Your task to perform on an android device: delete location history Image 0: 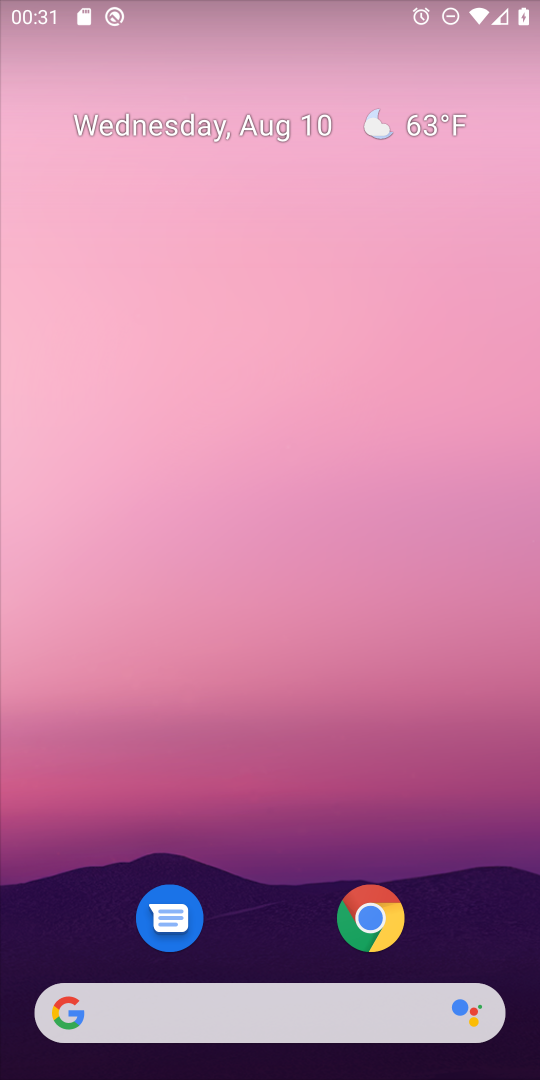
Step 0: press home button
Your task to perform on an android device: delete location history Image 1: 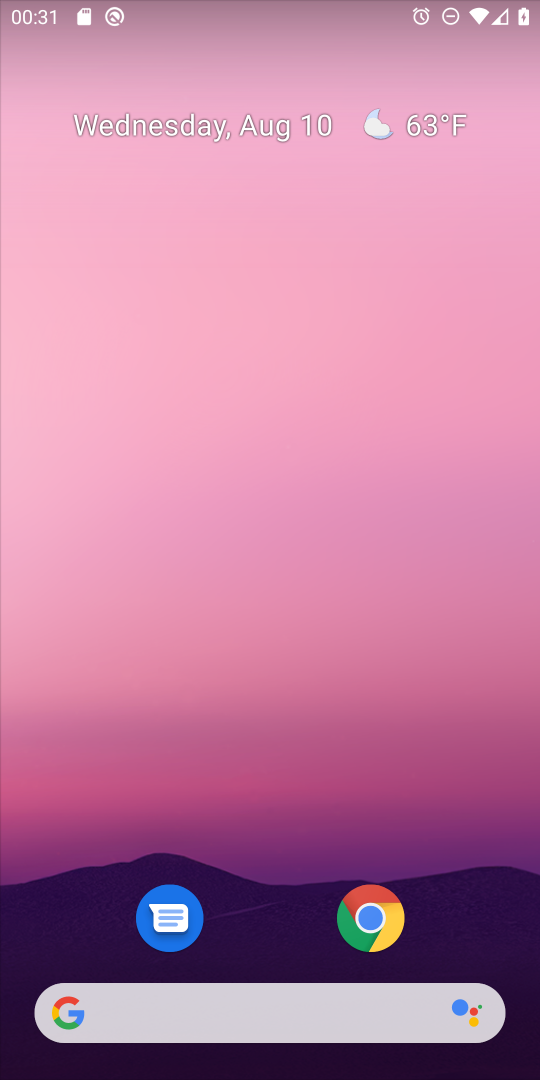
Step 1: press home button
Your task to perform on an android device: delete location history Image 2: 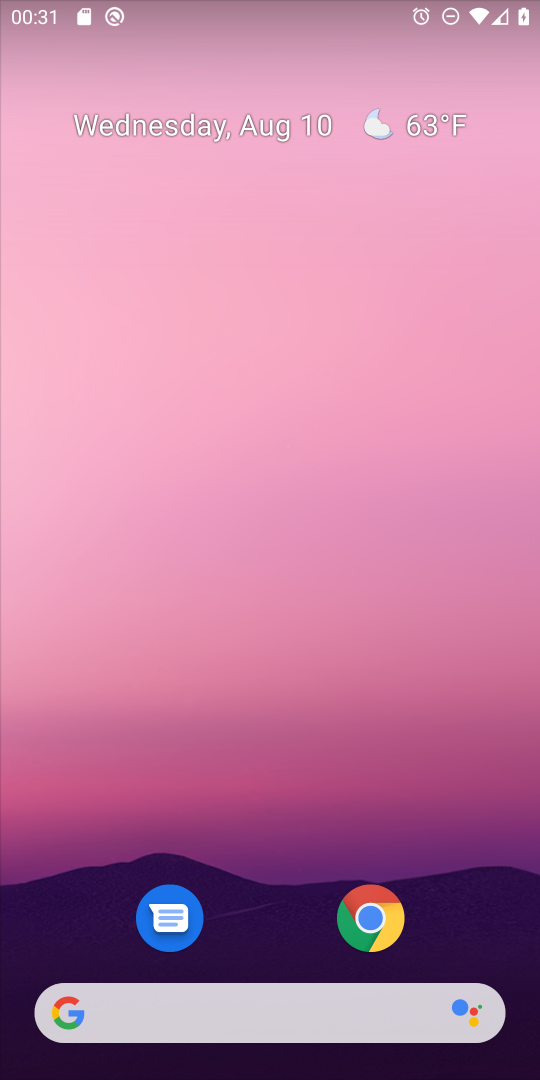
Step 2: drag from (283, 856) to (300, 73)
Your task to perform on an android device: delete location history Image 3: 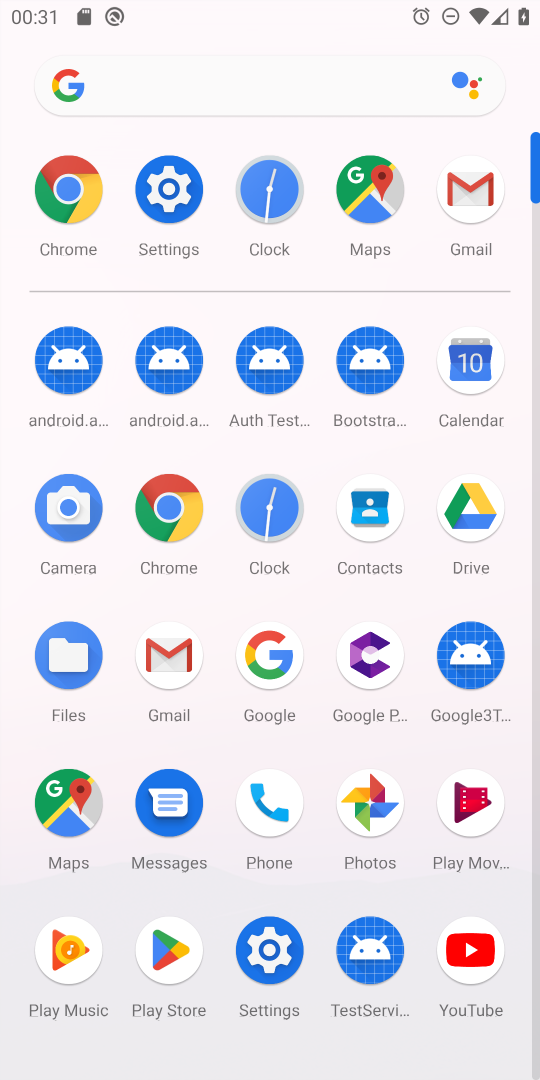
Step 3: click (78, 796)
Your task to perform on an android device: delete location history Image 4: 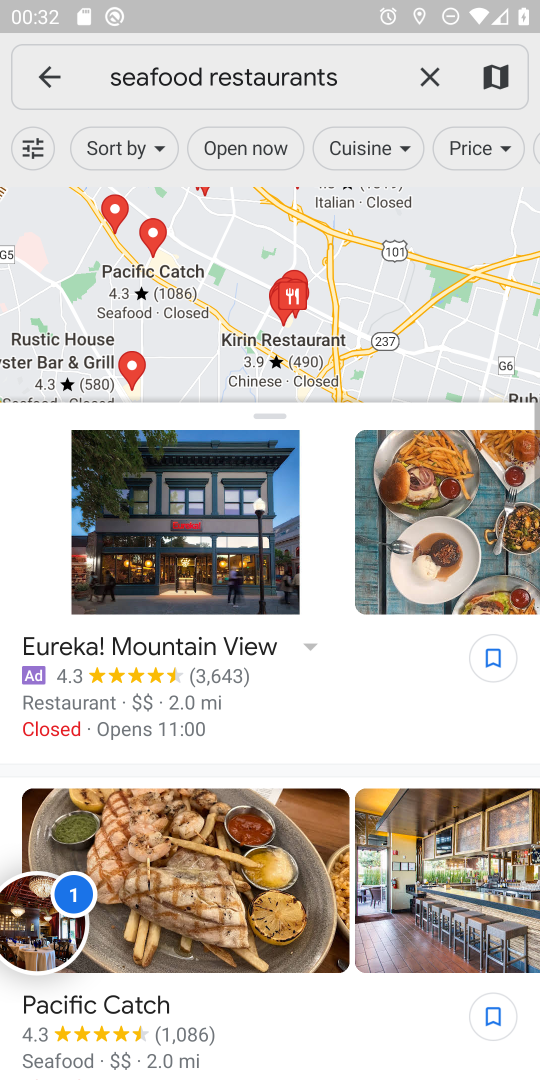
Step 4: click (47, 66)
Your task to perform on an android device: delete location history Image 5: 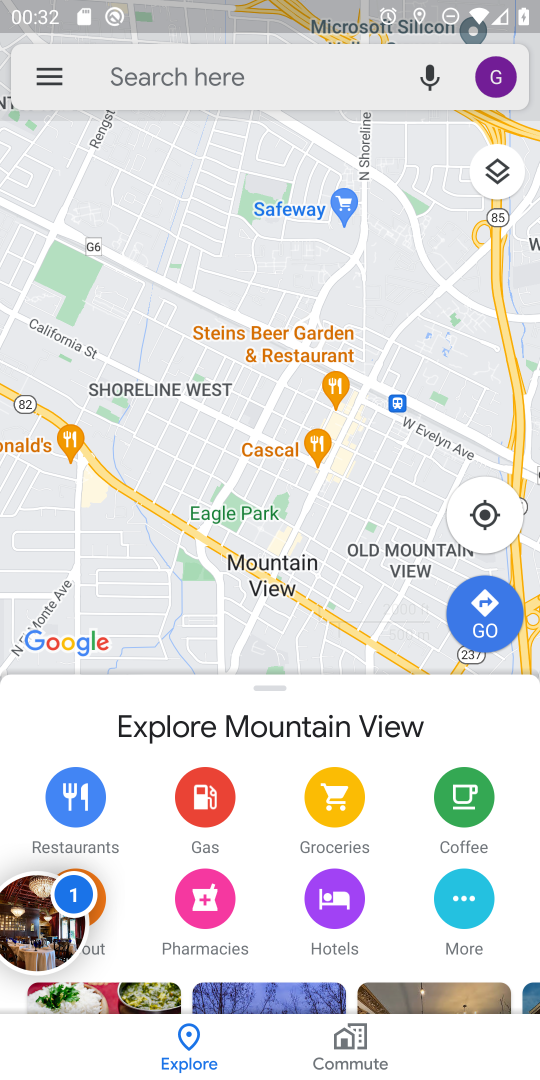
Step 5: click (44, 60)
Your task to perform on an android device: delete location history Image 6: 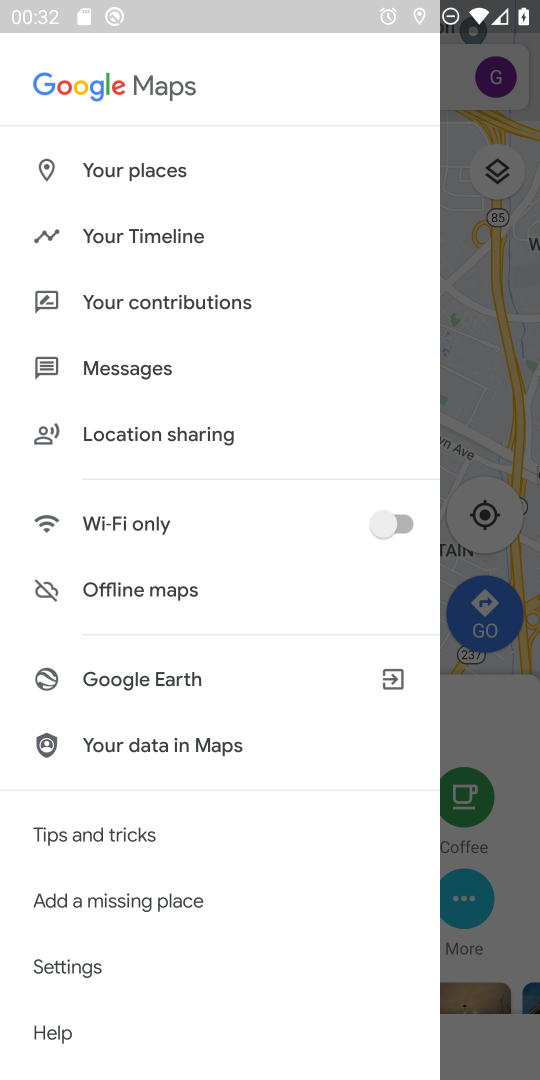
Step 6: drag from (166, 926) to (270, 419)
Your task to perform on an android device: delete location history Image 7: 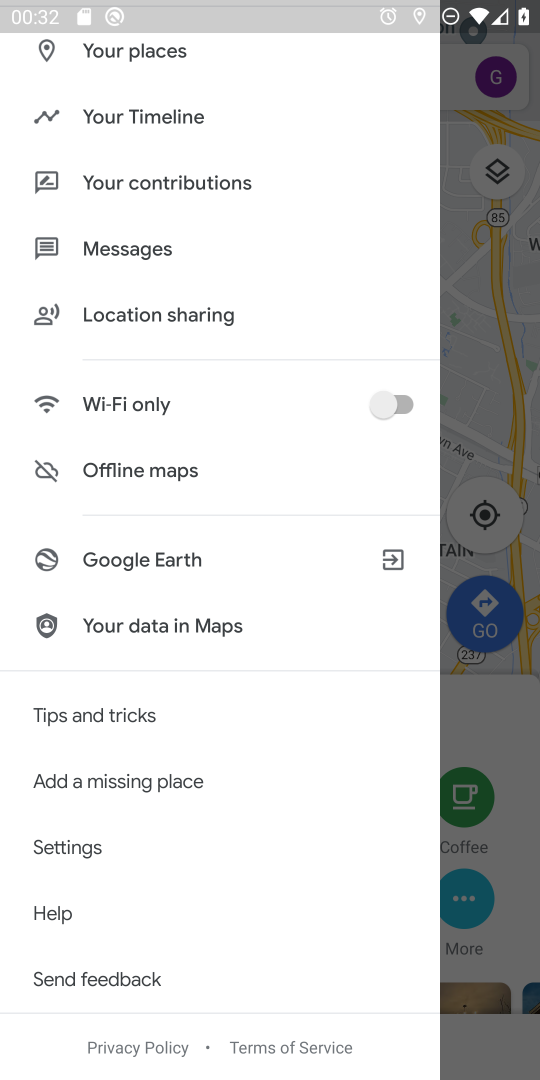
Step 7: click (57, 848)
Your task to perform on an android device: delete location history Image 8: 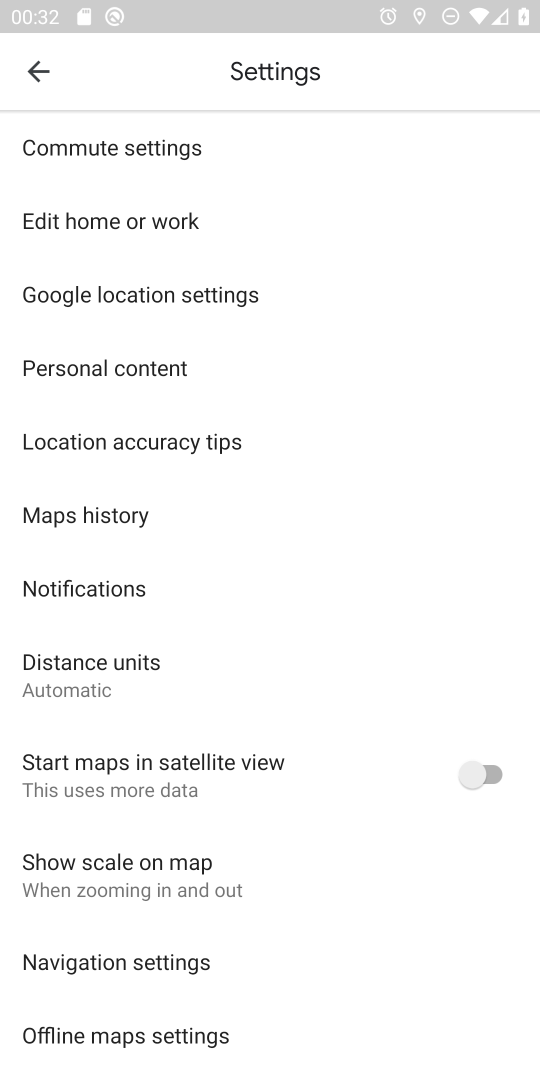
Step 8: click (61, 533)
Your task to perform on an android device: delete location history Image 9: 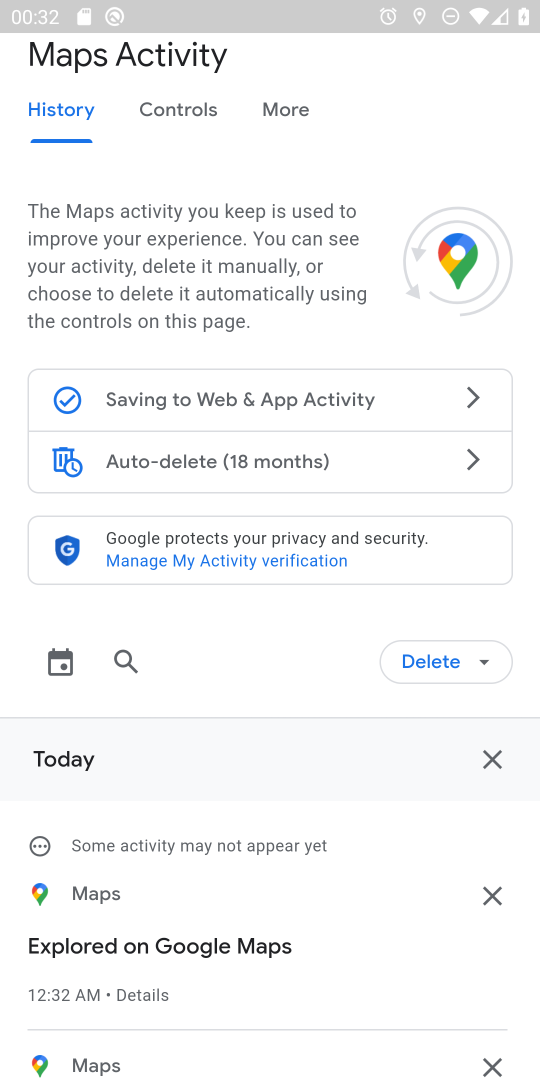
Step 9: click (440, 672)
Your task to perform on an android device: delete location history Image 10: 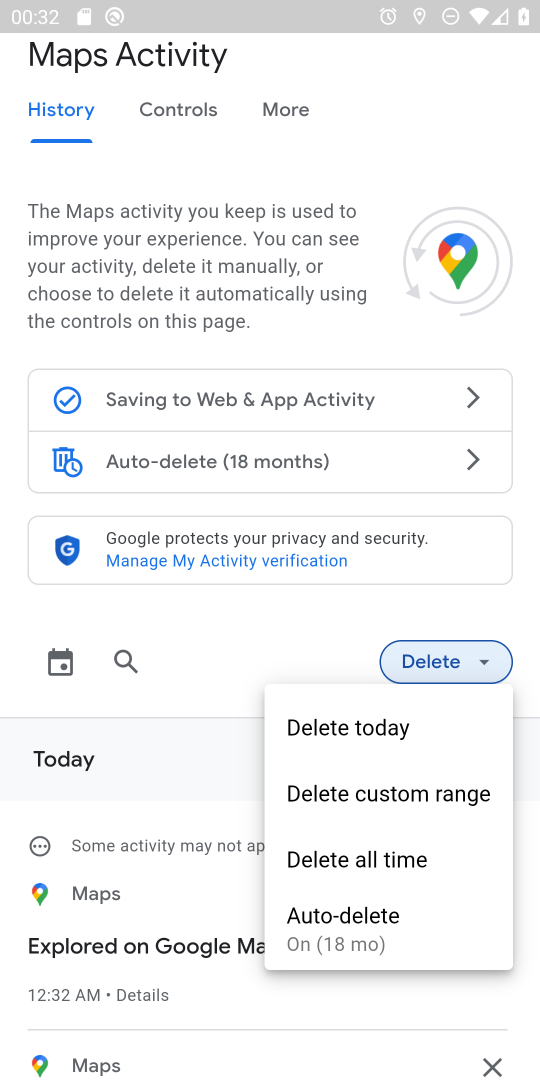
Step 10: click (496, 661)
Your task to perform on an android device: delete location history Image 11: 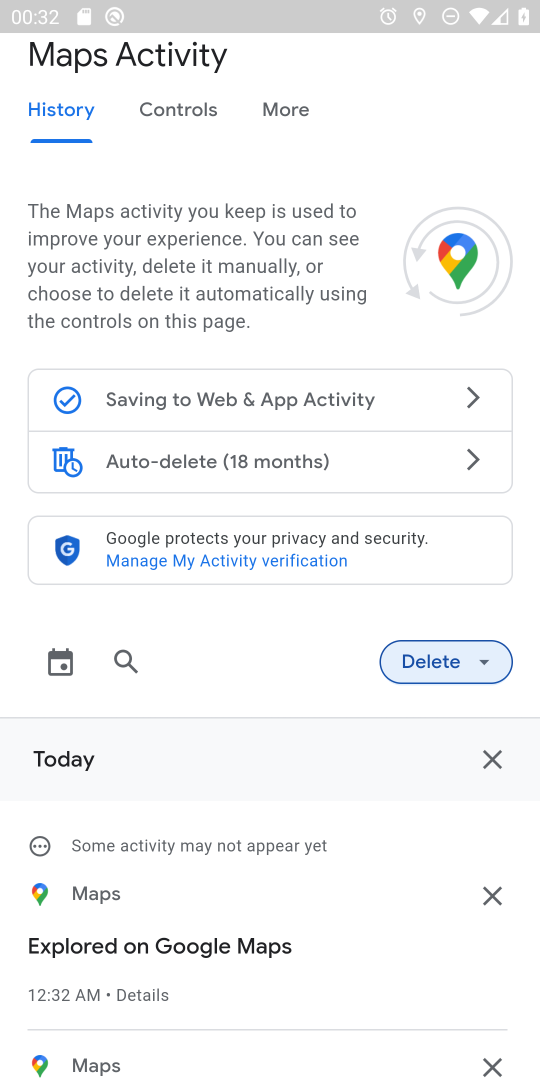
Step 11: click (496, 661)
Your task to perform on an android device: delete location history Image 12: 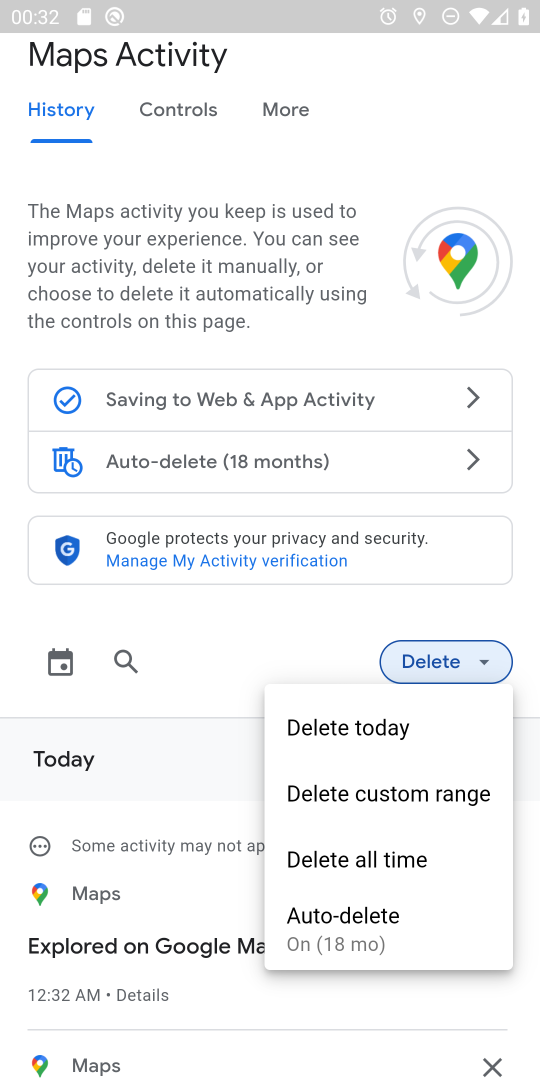
Step 12: click (360, 852)
Your task to perform on an android device: delete location history Image 13: 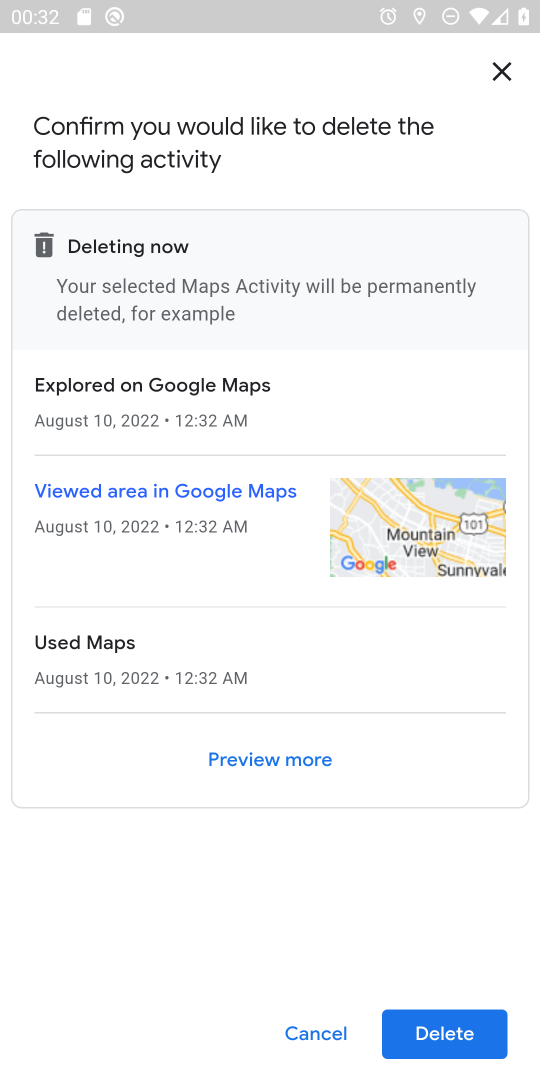
Step 13: click (474, 1019)
Your task to perform on an android device: delete location history Image 14: 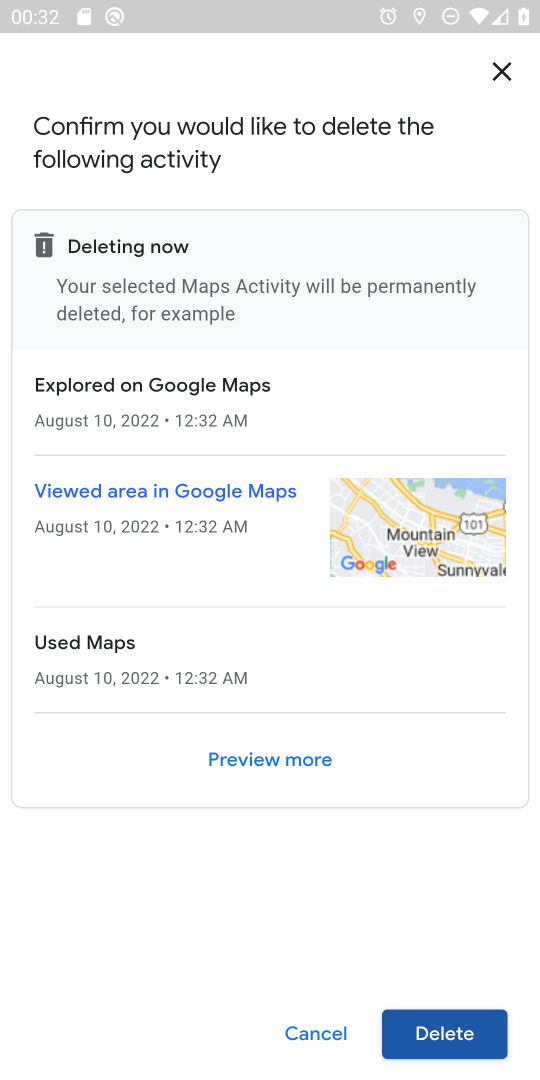
Step 14: click (454, 1046)
Your task to perform on an android device: delete location history Image 15: 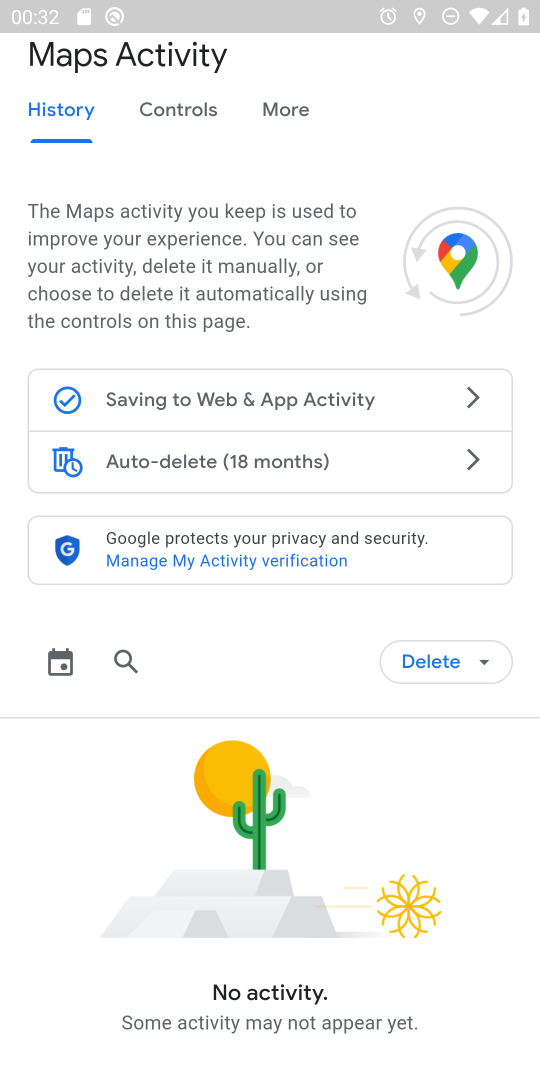
Step 15: click (453, 1037)
Your task to perform on an android device: delete location history Image 16: 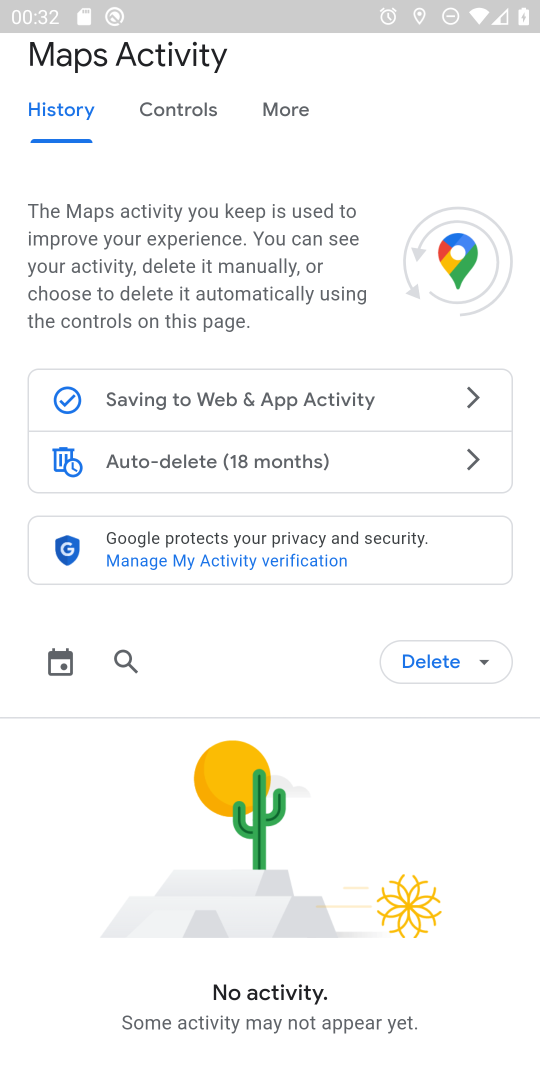
Step 16: task complete